Your task to perform on an android device: Open notification settings Image 0: 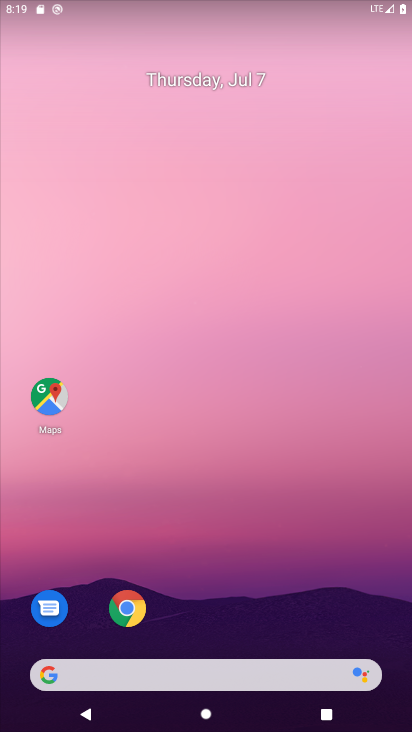
Step 0: drag from (380, 621) to (367, 81)
Your task to perform on an android device: Open notification settings Image 1: 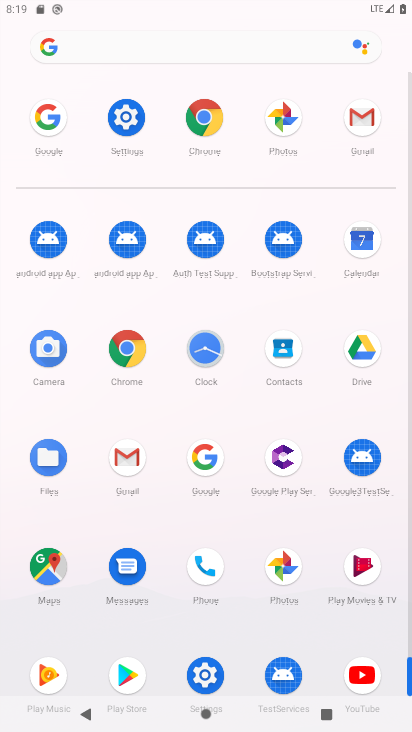
Step 1: click (205, 668)
Your task to perform on an android device: Open notification settings Image 2: 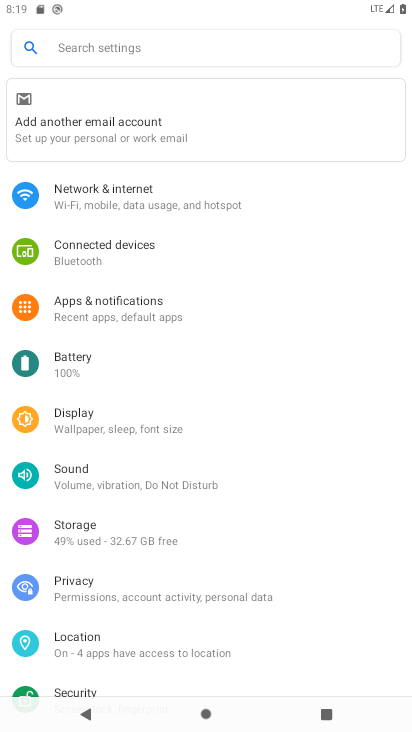
Step 2: drag from (357, 587) to (353, 454)
Your task to perform on an android device: Open notification settings Image 3: 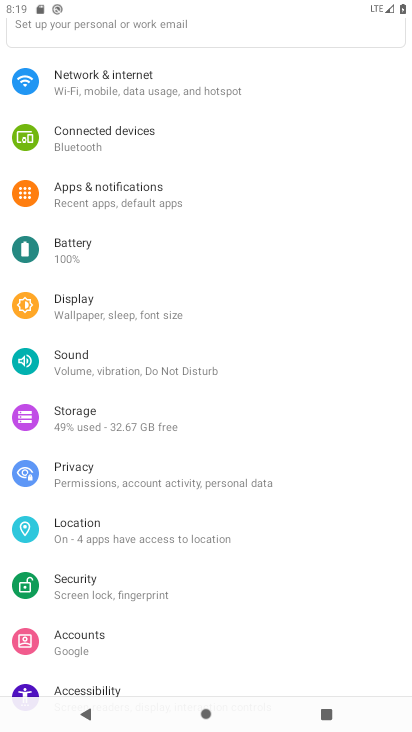
Step 3: drag from (350, 558) to (329, 384)
Your task to perform on an android device: Open notification settings Image 4: 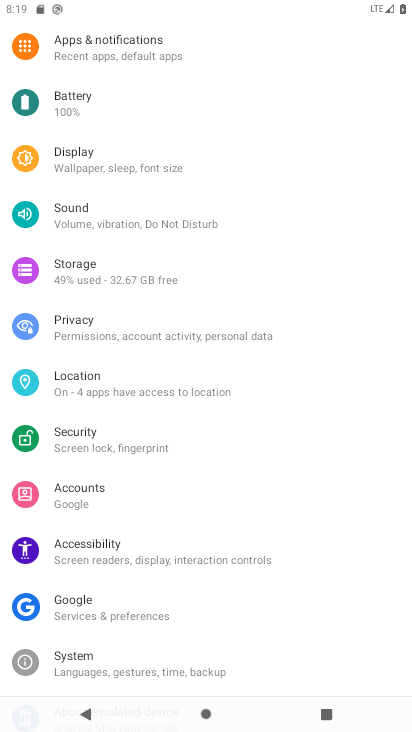
Step 4: drag from (340, 597) to (334, 413)
Your task to perform on an android device: Open notification settings Image 5: 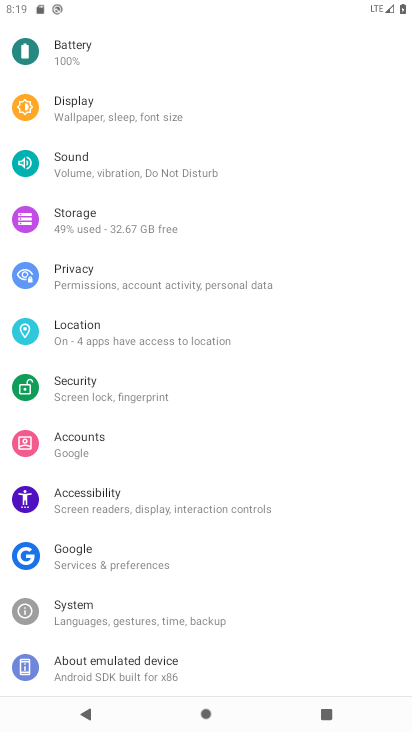
Step 5: drag from (341, 309) to (341, 404)
Your task to perform on an android device: Open notification settings Image 6: 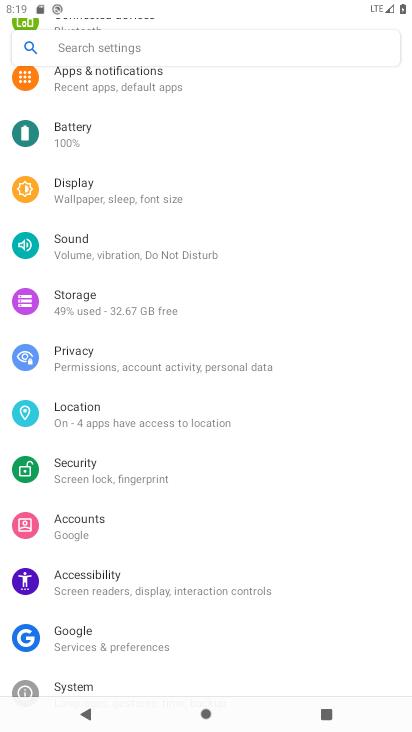
Step 6: drag from (341, 293) to (340, 388)
Your task to perform on an android device: Open notification settings Image 7: 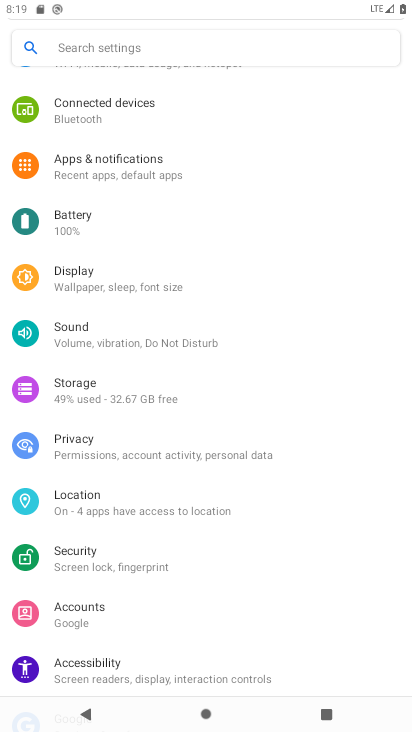
Step 7: drag from (336, 313) to (336, 407)
Your task to perform on an android device: Open notification settings Image 8: 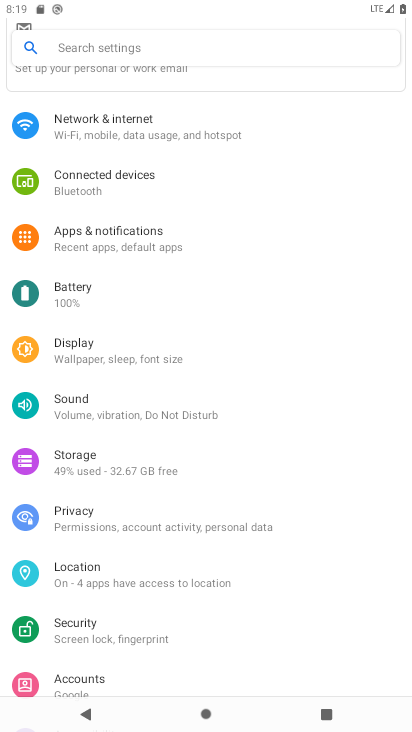
Step 8: drag from (332, 314) to (332, 411)
Your task to perform on an android device: Open notification settings Image 9: 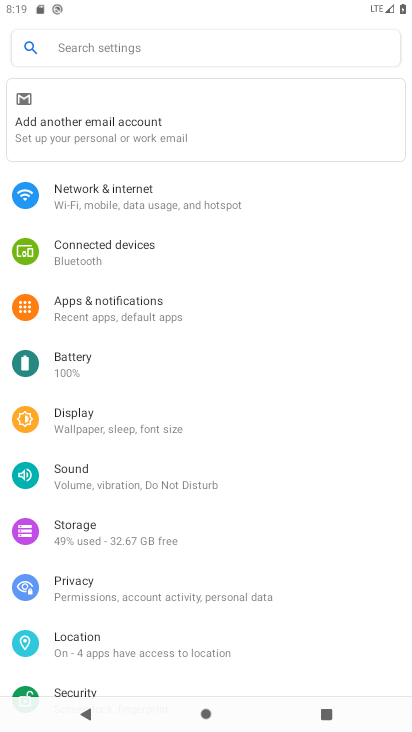
Step 9: drag from (325, 322) to (325, 417)
Your task to perform on an android device: Open notification settings Image 10: 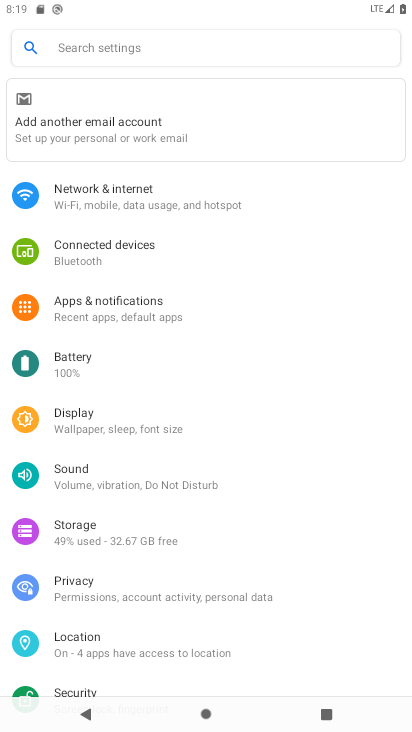
Step 10: click (197, 323)
Your task to perform on an android device: Open notification settings Image 11: 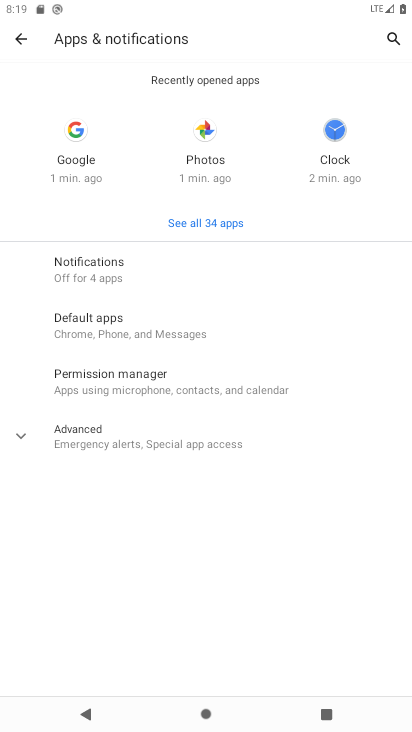
Step 11: click (129, 270)
Your task to perform on an android device: Open notification settings Image 12: 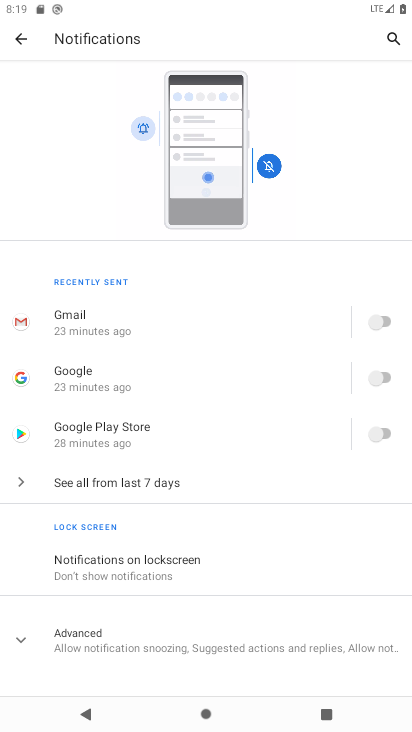
Step 12: task complete